Your task to perform on an android device: add a label to a message in the gmail app Image 0: 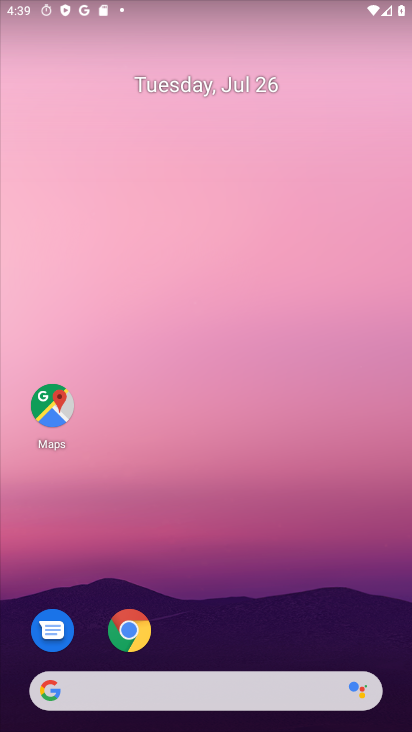
Step 0: drag from (255, 357) to (221, 72)
Your task to perform on an android device: add a label to a message in the gmail app Image 1: 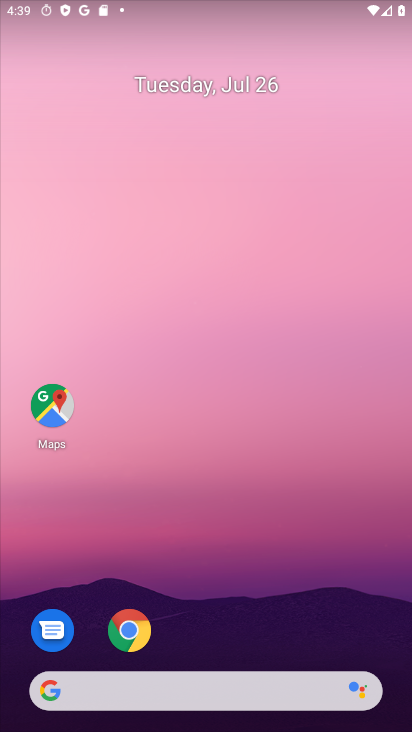
Step 1: drag from (268, 623) to (221, 78)
Your task to perform on an android device: add a label to a message in the gmail app Image 2: 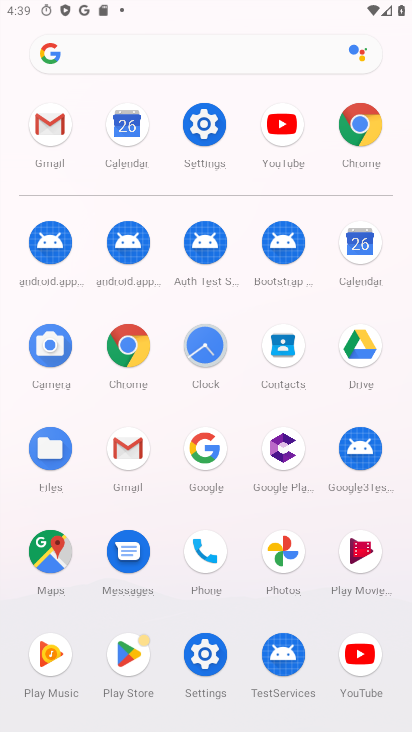
Step 2: click (54, 128)
Your task to perform on an android device: add a label to a message in the gmail app Image 3: 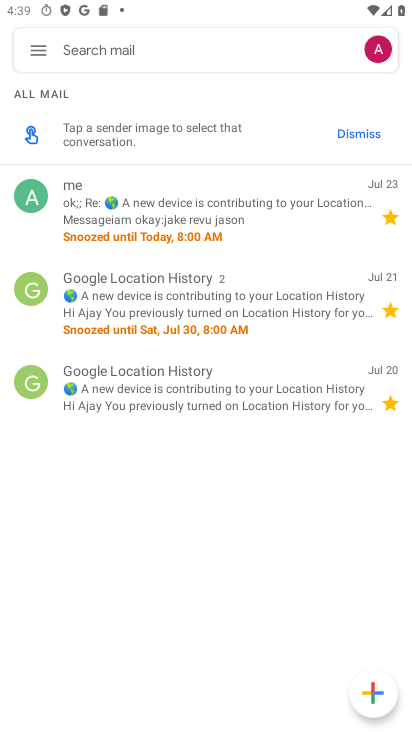
Step 3: click (226, 234)
Your task to perform on an android device: add a label to a message in the gmail app Image 4: 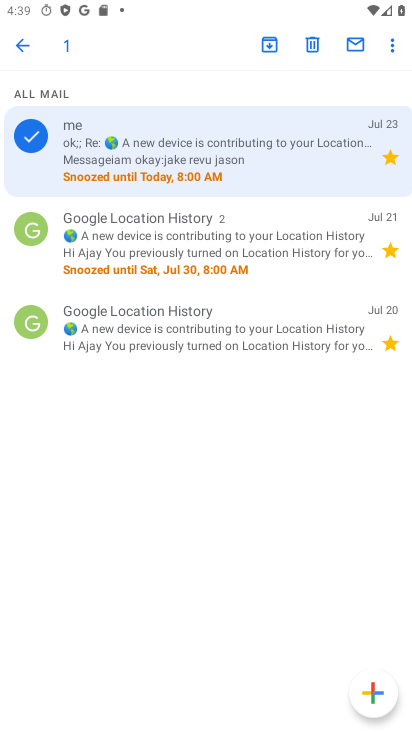
Step 4: click (383, 48)
Your task to perform on an android device: add a label to a message in the gmail app Image 5: 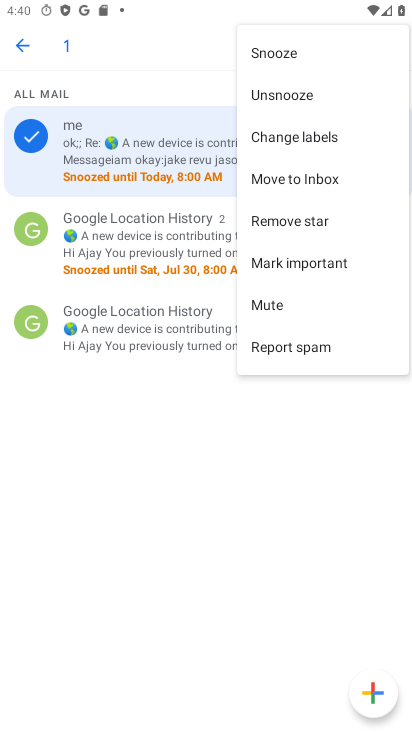
Step 5: task complete